Your task to perform on an android device: Open Yahoo.com Image 0: 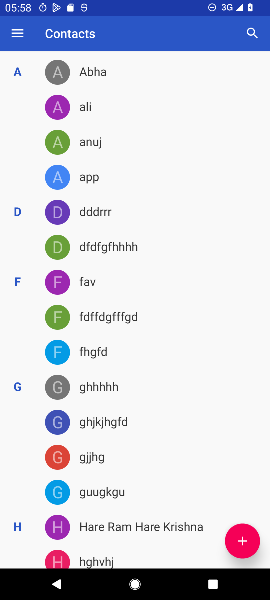
Step 0: press home button
Your task to perform on an android device: Open Yahoo.com Image 1: 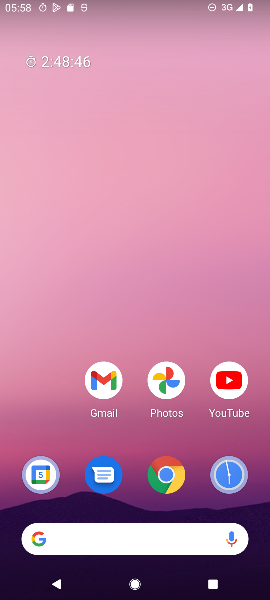
Step 1: drag from (58, 437) to (65, 189)
Your task to perform on an android device: Open Yahoo.com Image 2: 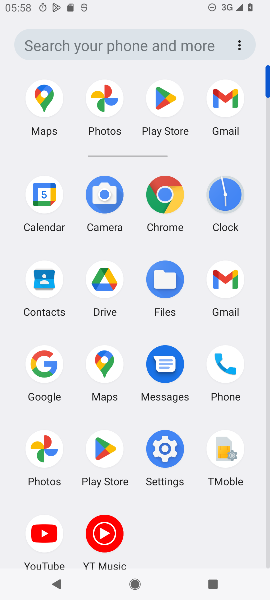
Step 2: click (170, 194)
Your task to perform on an android device: Open Yahoo.com Image 3: 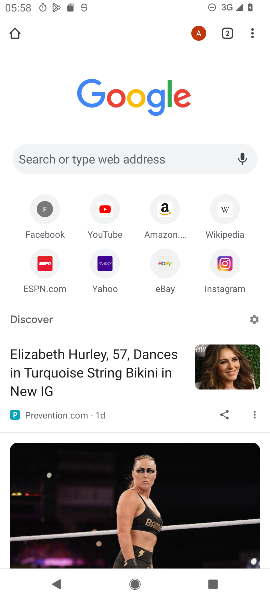
Step 3: click (192, 154)
Your task to perform on an android device: Open Yahoo.com Image 4: 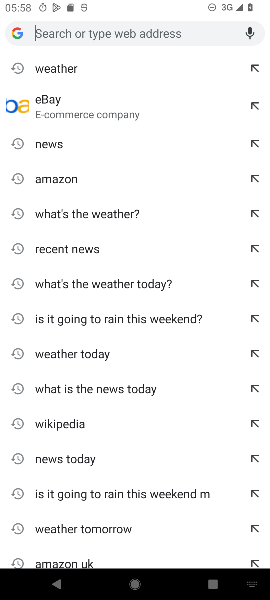
Step 4: type "yahoo.com"
Your task to perform on an android device: Open Yahoo.com Image 5: 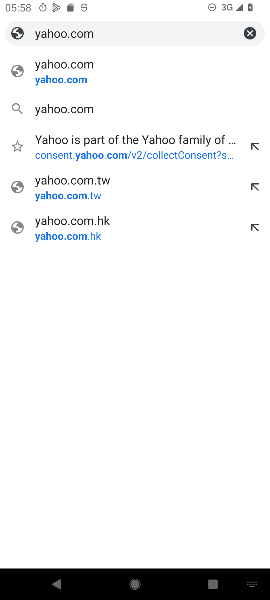
Step 5: click (101, 74)
Your task to perform on an android device: Open Yahoo.com Image 6: 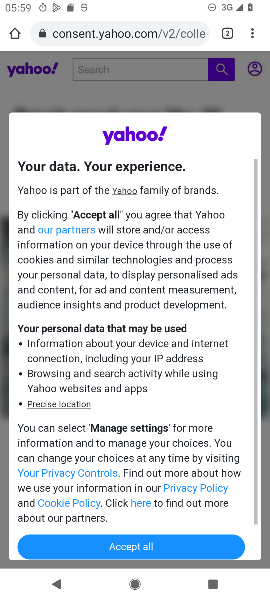
Step 6: task complete